Your task to perform on an android device: turn pop-ups on in chrome Image 0: 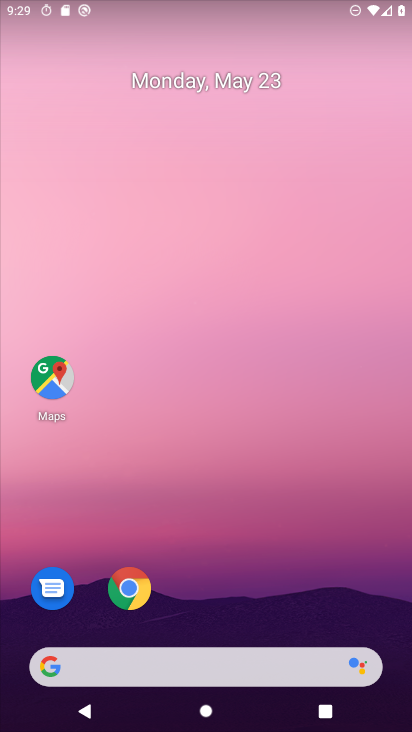
Step 0: click (124, 584)
Your task to perform on an android device: turn pop-ups on in chrome Image 1: 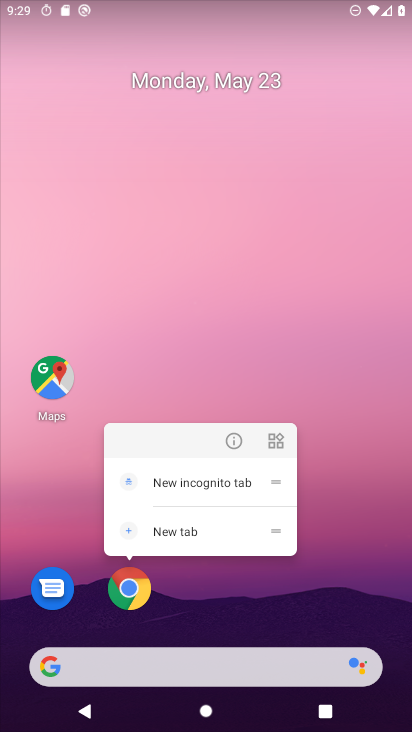
Step 1: click (124, 584)
Your task to perform on an android device: turn pop-ups on in chrome Image 2: 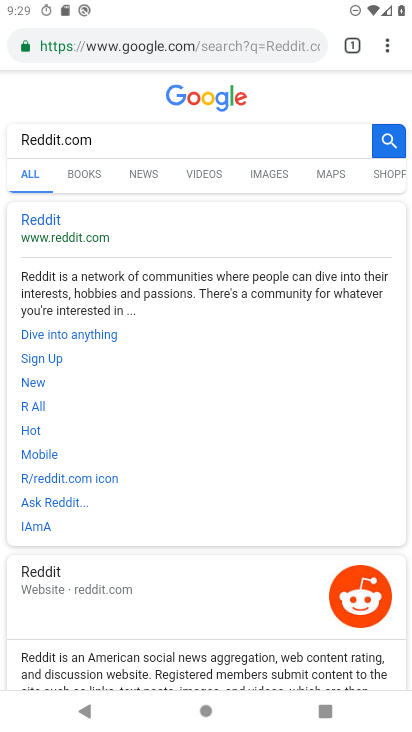
Step 2: click (386, 37)
Your task to perform on an android device: turn pop-ups on in chrome Image 3: 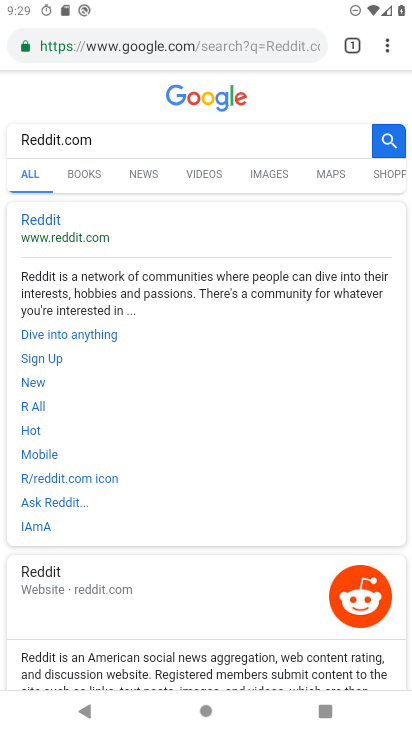
Step 3: click (385, 46)
Your task to perform on an android device: turn pop-ups on in chrome Image 4: 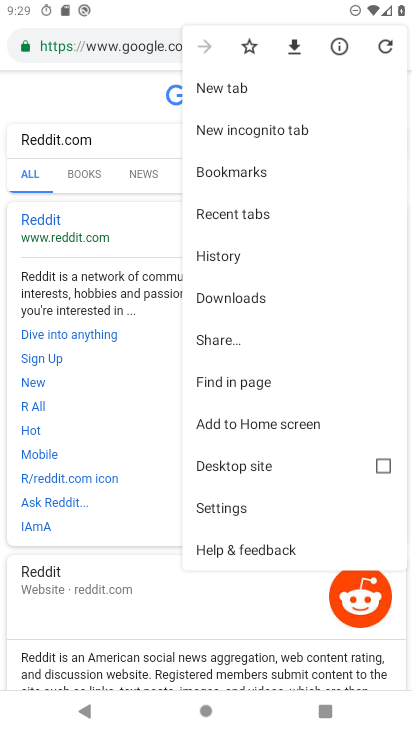
Step 4: click (220, 501)
Your task to perform on an android device: turn pop-ups on in chrome Image 5: 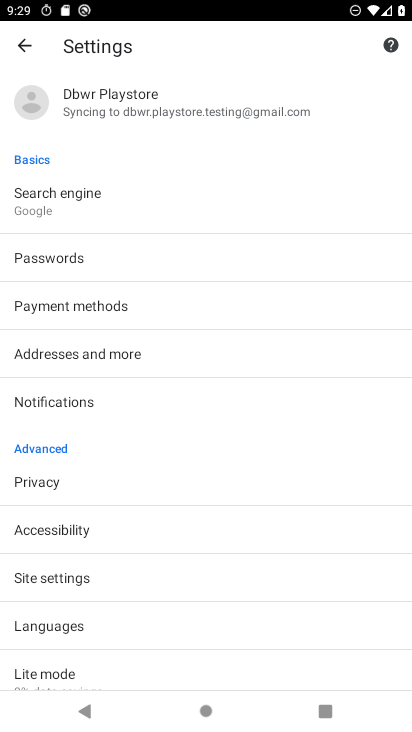
Step 5: click (53, 574)
Your task to perform on an android device: turn pop-ups on in chrome Image 6: 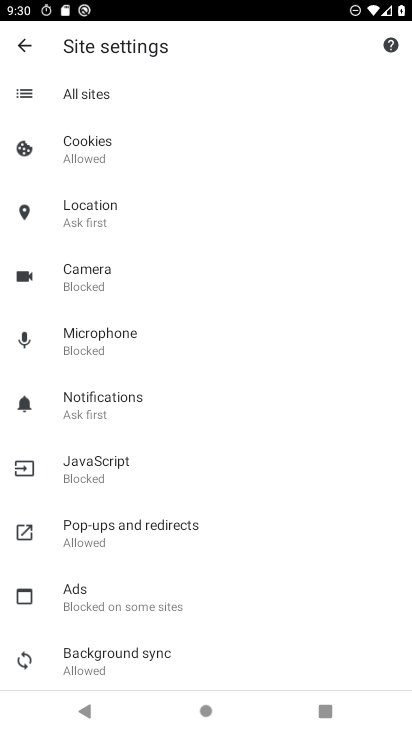
Step 6: click (109, 529)
Your task to perform on an android device: turn pop-ups on in chrome Image 7: 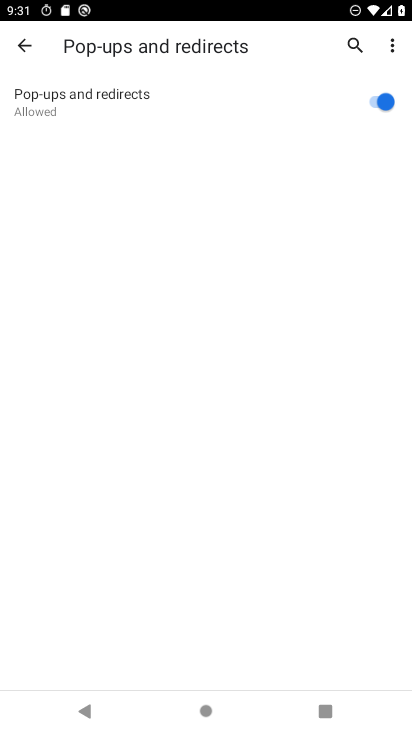
Step 7: click (371, 103)
Your task to perform on an android device: turn pop-ups on in chrome Image 8: 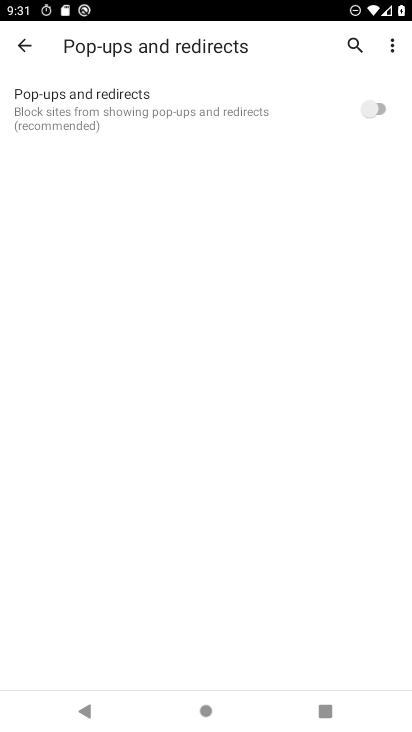
Step 8: click (374, 102)
Your task to perform on an android device: turn pop-ups on in chrome Image 9: 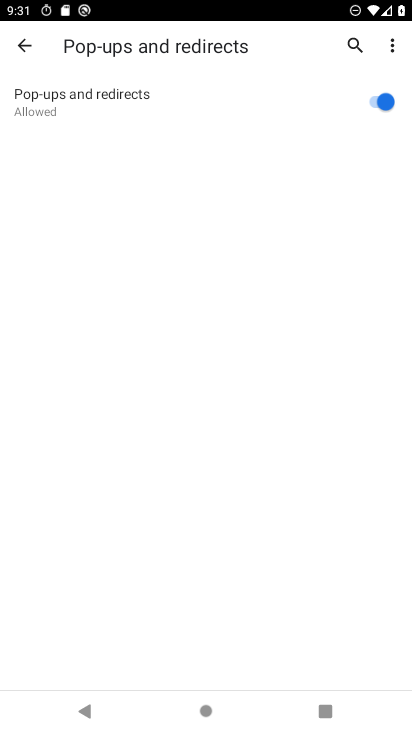
Step 9: task complete